Your task to perform on an android device: check out phone information Image 0: 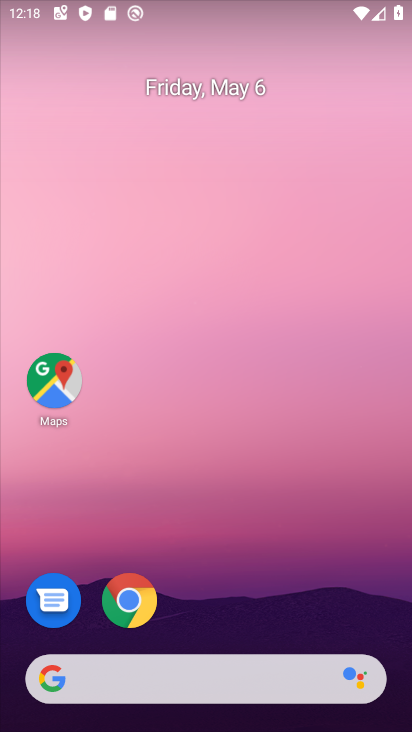
Step 0: drag from (311, 622) to (372, 64)
Your task to perform on an android device: check out phone information Image 1: 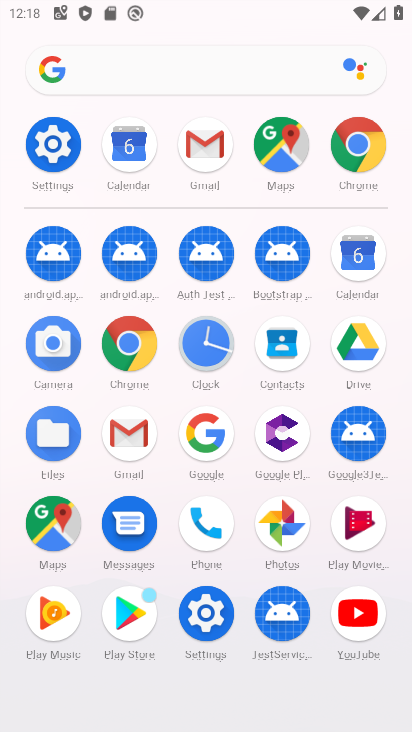
Step 1: click (214, 616)
Your task to perform on an android device: check out phone information Image 2: 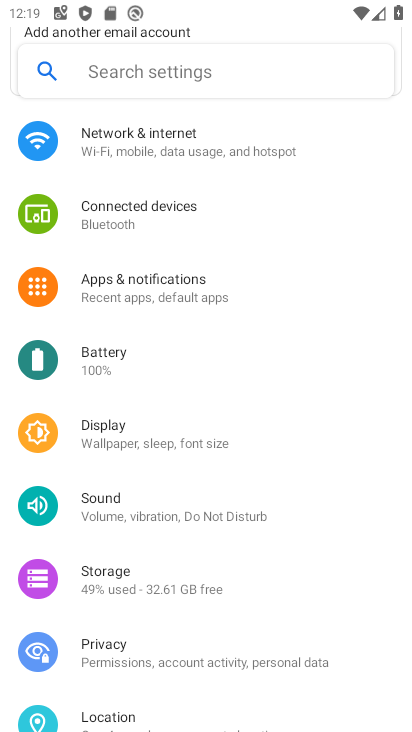
Step 2: drag from (196, 627) to (225, 101)
Your task to perform on an android device: check out phone information Image 3: 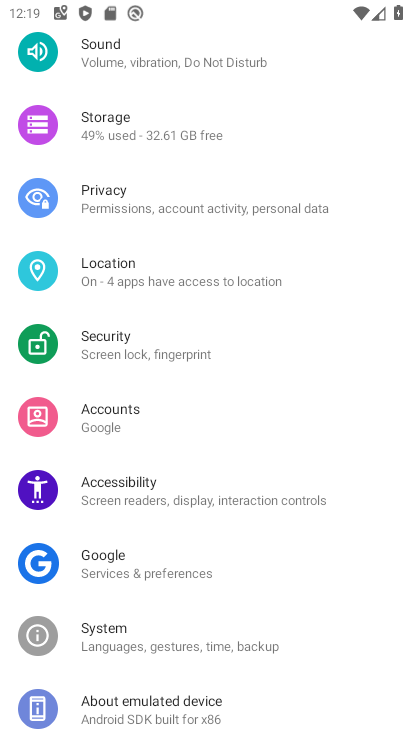
Step 3: click (155, 721)
Your task to perform on an android device: check out phone information Image 4: 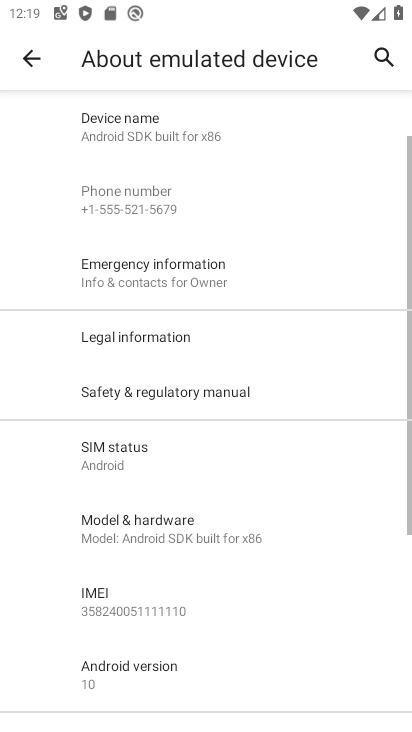
Step 4: task complete